Your task to perform on an android device: Is it going to rain this weekend? Image 0: 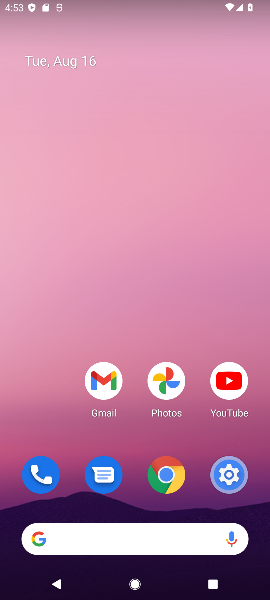
Step 0: drag from (195, 490) to (88, 43)
Your task to perform on an android device: Is it going to rain this weekend? Image 1: 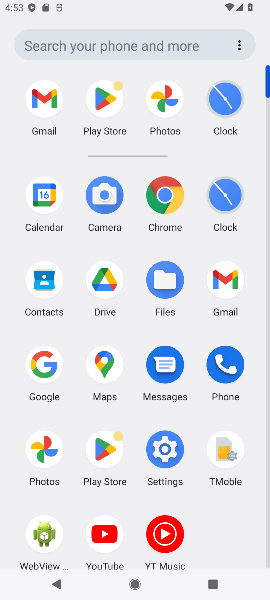
Step 1: click (42, 361)
Your task to perform on an android device: Is it going to rain this weekend? Image 2: 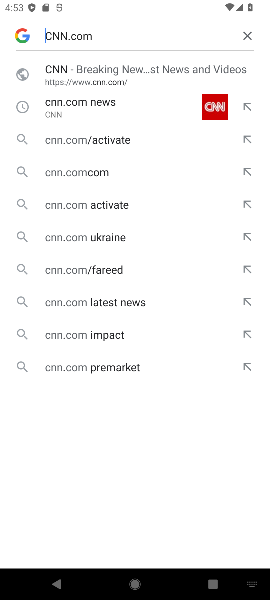
Step 2: click (248, 28)
Your task to perform on an android device: Is it going to rain this weekend? Image 3: 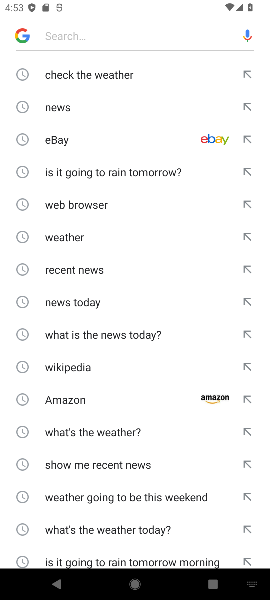
Step 3: drag from (121, 510) to (132, 240)
Your task to perform on an android device: Is it going to rain this weekend? Image 4: 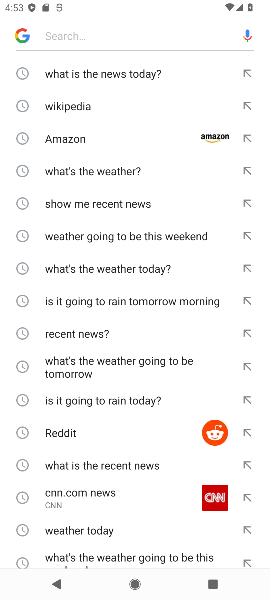
Step 4: drag from (93, 492) to (104, 227)
Your task to perform on an android device: Is it going to rain this weekend? Image 5: 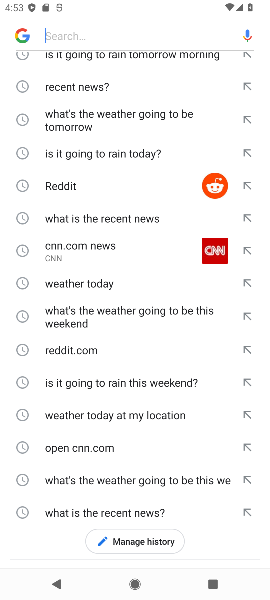
Step 5: click (121, 385)
Your task to perform on an android device: Is it going to rain this weekend? Image 6: 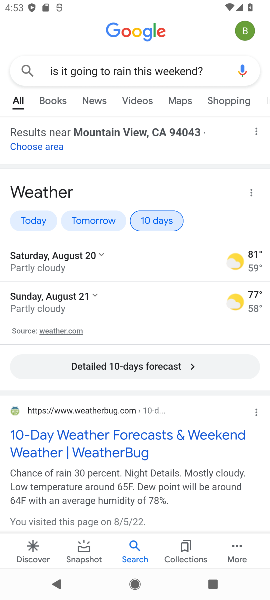
Step 6: task complete